Your task to perform on an android device: open device folders in google photos Image 0: 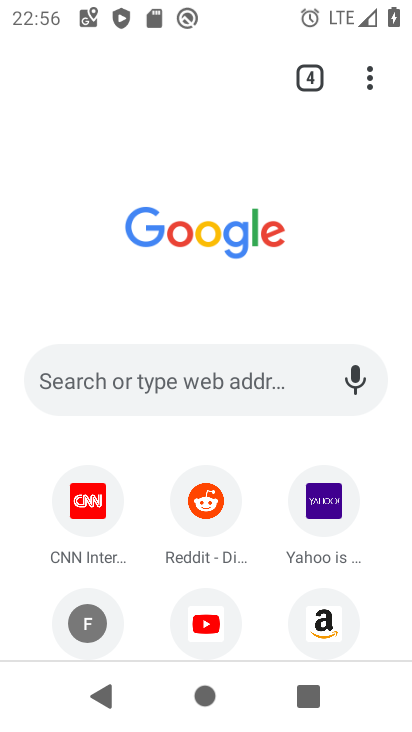
Step 0: press back button
Your task to perform on an android device: open device folders in google photos Image 1: 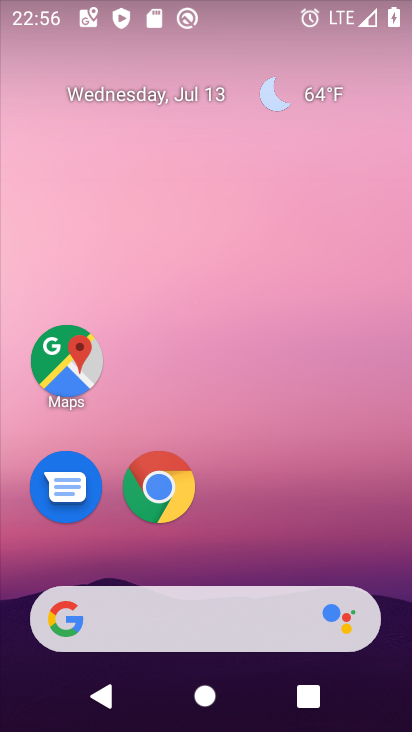
Step 1: drag from (259, 553) to (276, 1)
Your task to perform on an android device: open device folders in google photos Image 2: 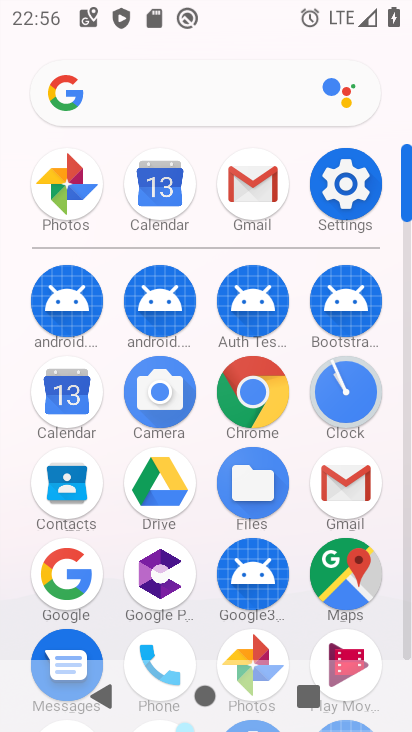
Step 2: click (256, 651)
Your task to perform on an android device: open device folders in google photos Image 3: 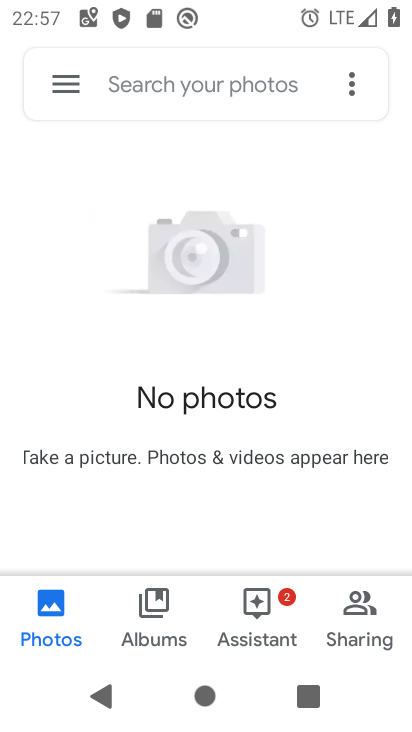
Step 3: task complete